Your task to perform on an android device: open app "Facebook" Image 0: 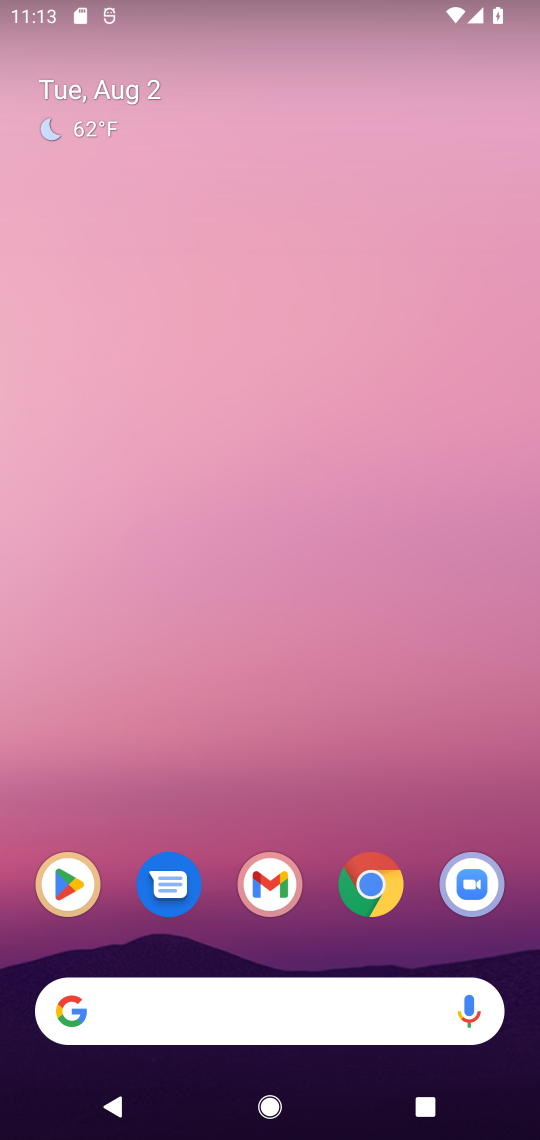
Step 0: click (74, 892)
Your task to perform on an android device: open app "Facebook" Image 1: 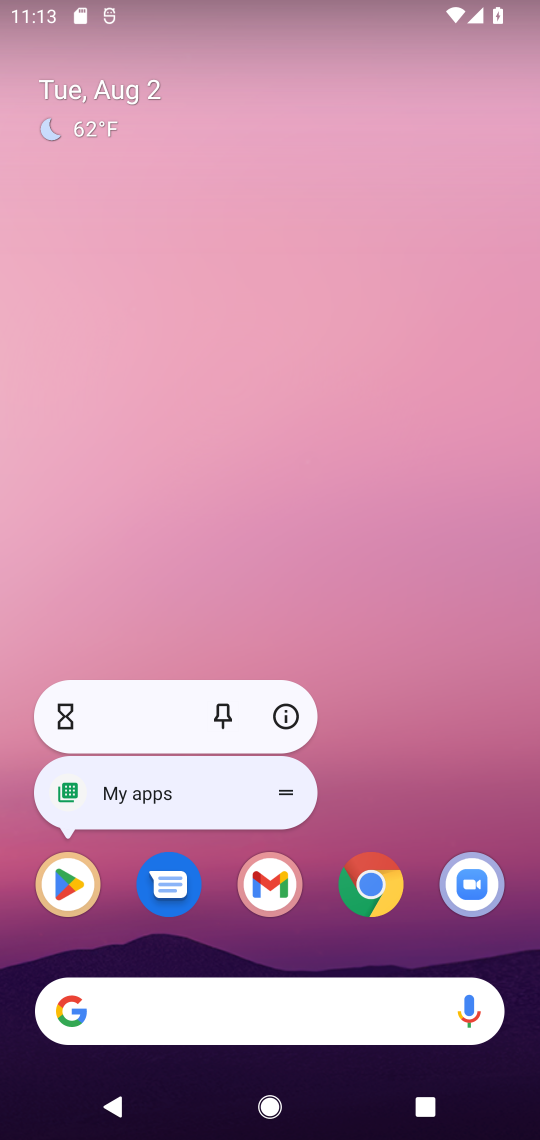
Step 1: click (67, 875)
Your task to perform on an android device: open app "Facebook" Image 2: 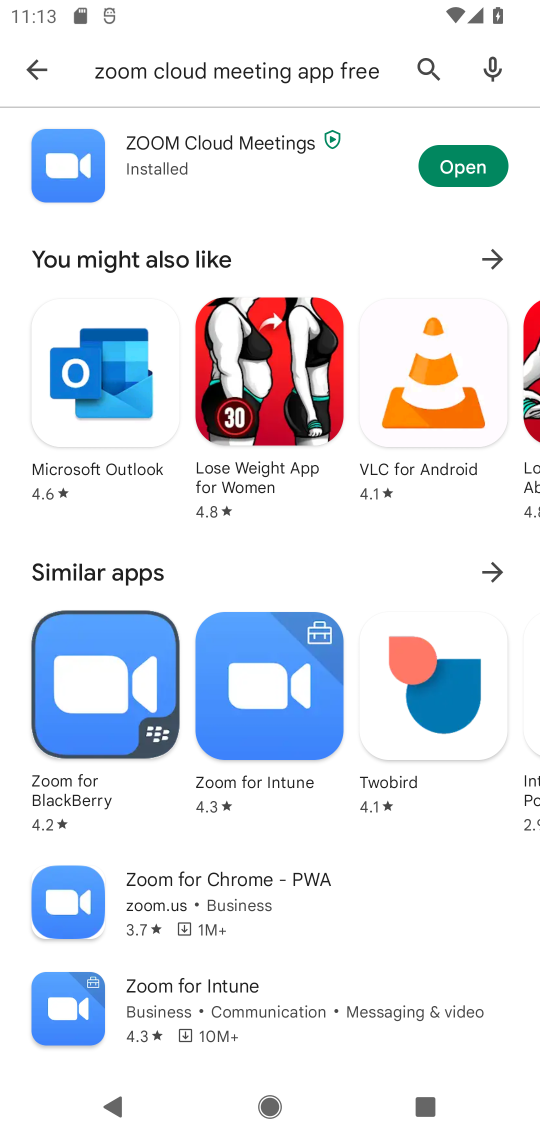
Step 2: click (141, 66)
Your task to perform on an android device: open app "Facebook" Image 3: 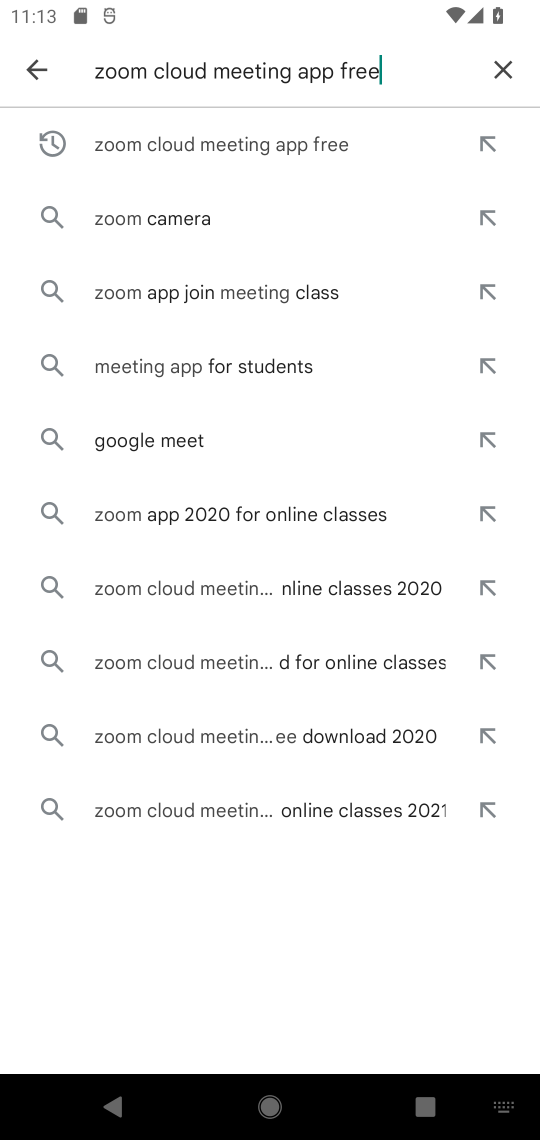
Step 3: click (499, 64)
Your task to perform on an android device: open app "Facebook" Image 4: 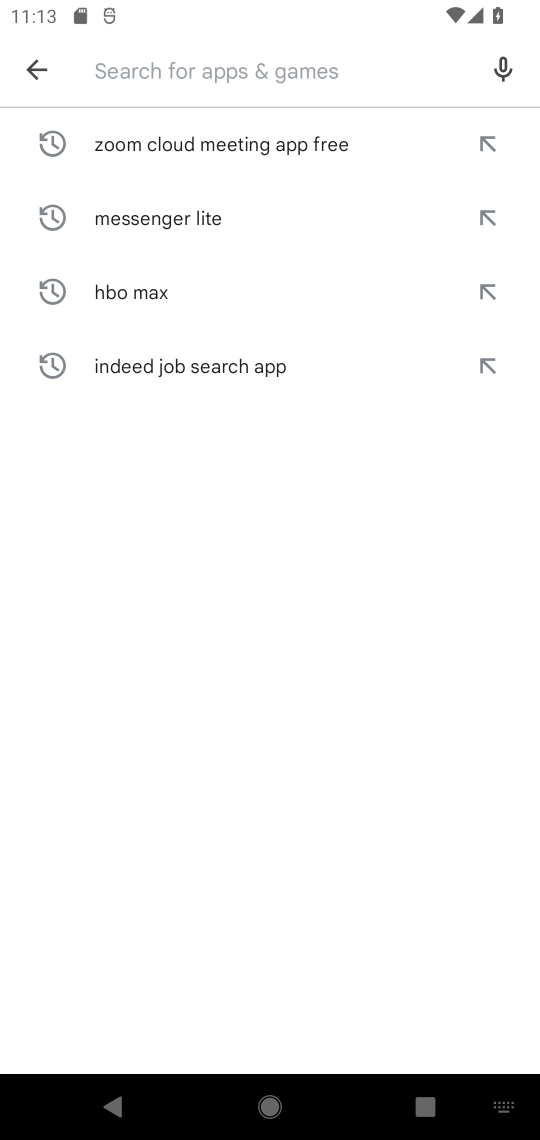
Step 4: type "facebook"
Your task to perform on an android device: open app "Facebook" Image 5: 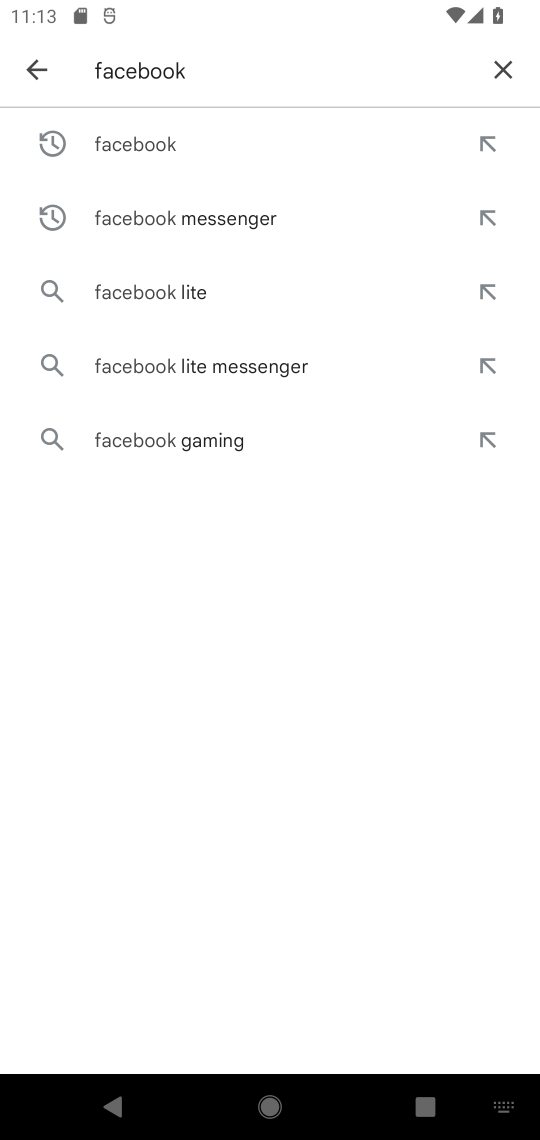
Step 5: click (103, 136)
Your task to perform on an android device: open app "Facebook" Image 6: 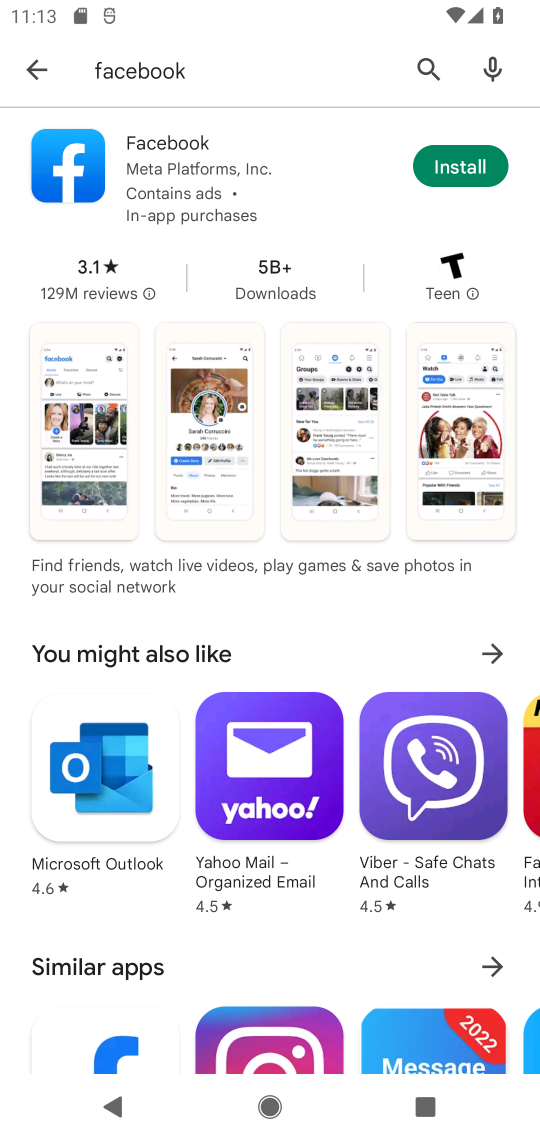
Step 6: task complete